Your task to perform on an android device: Go to wifi settings Image 0: 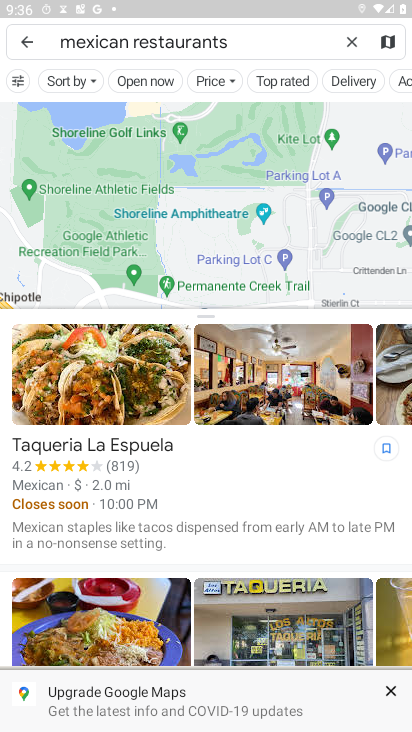
Step 0: press back button
Your task to perform on an android device: Go to wifi settings Image 1: 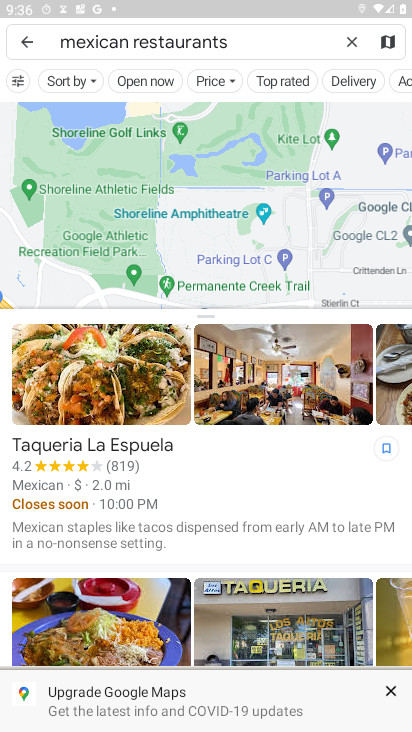
Step 1: press home button
Your task to perform on an android device: Go to wifi settings Image 2: 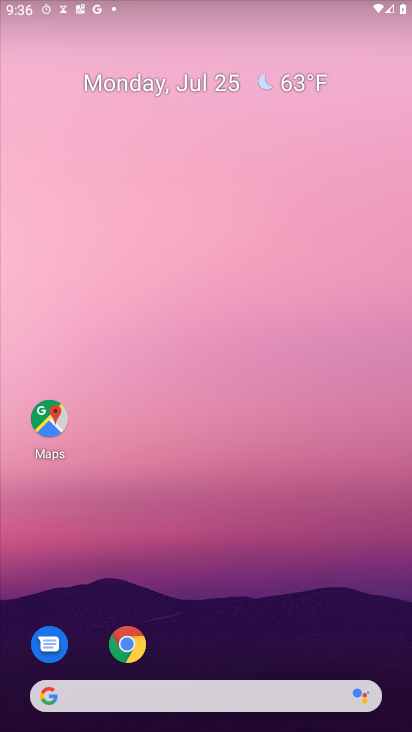
Step 2: drag from (157, 262) to (121, 22)
Your task to perform on an android device: Go to wifi settings Image 3: 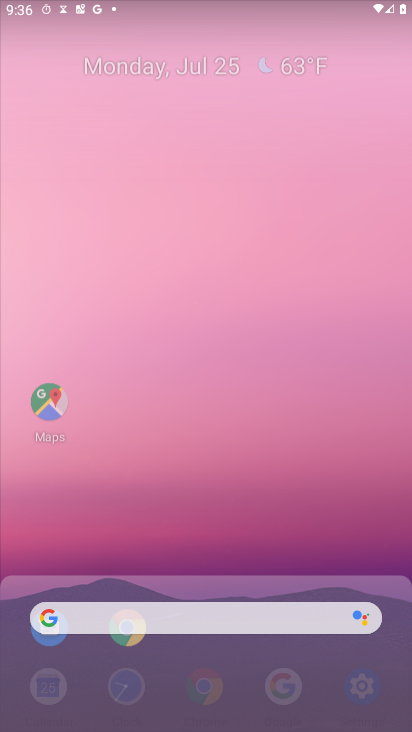
Step 3: drag from (209, 432) to (191, 213)
Your task to perform on an android device: Go to wifi settings Image 4: 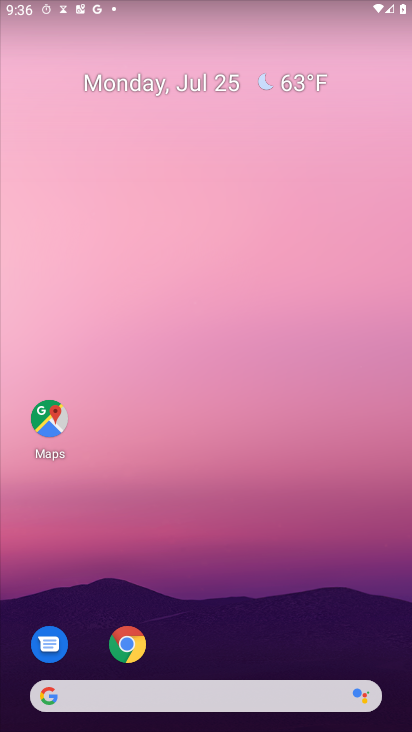
Step 4: drag from (211, 542) to (165, 95)
Your task to perform on an android device: Go to wifi settings Image 5: 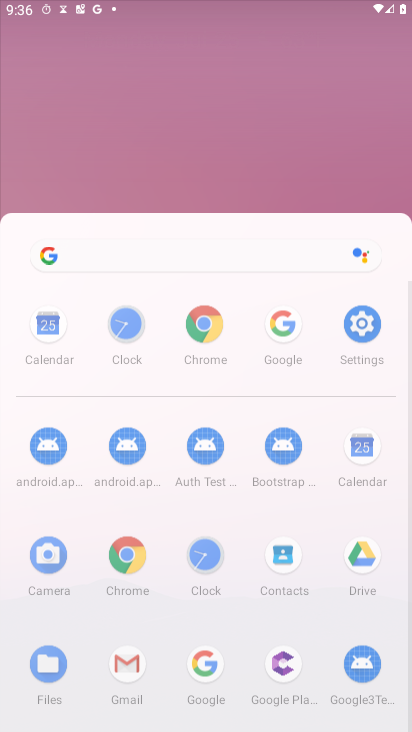
Step 5: drag from (241, 467) to (241, 96)
Your task to perform on an android device: Go to wifi settings Image 6: 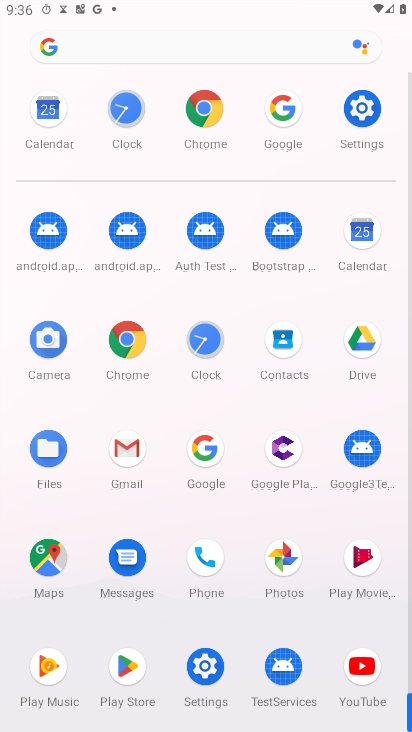
Step 6: drag from (230, 393) to (219, 150)
Your task to perform on an android device: Go to wifi settings Image 7: 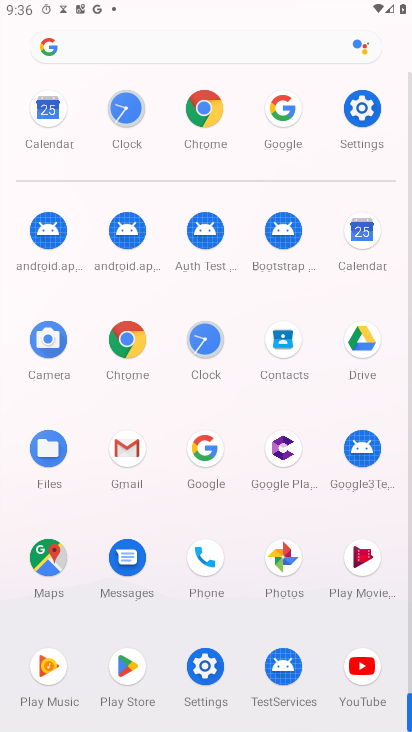
Step 7: click (358, 107)
Your task to perform on an android device: Go to wifi settings Image 8: 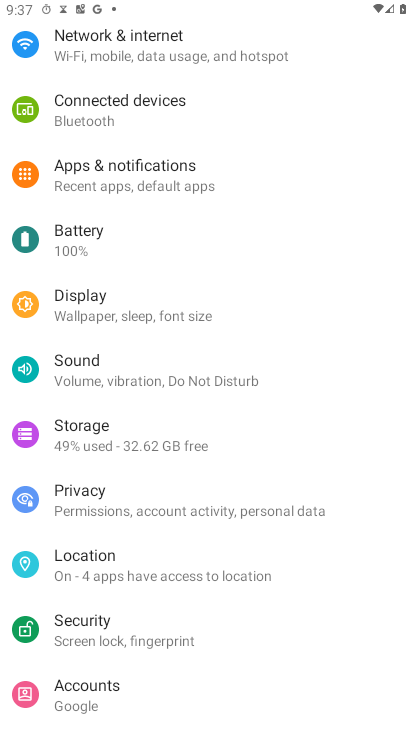
Step 8: task complete